Your task to perform on an android device: set the stopwatch Image 0: 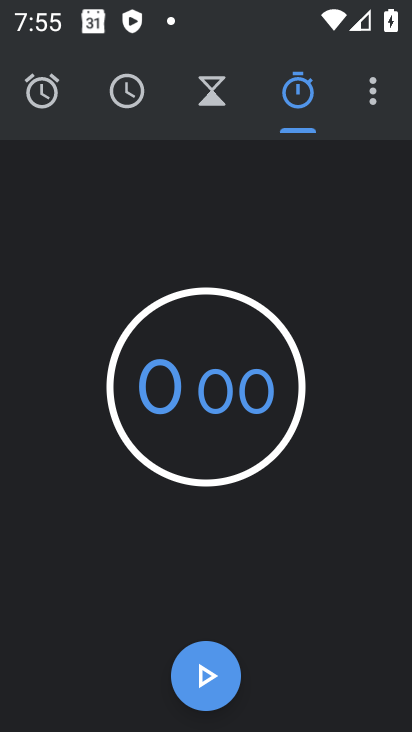
Step 0: press home button
Your task to perform on an android device: set the stopwatch Image 1: 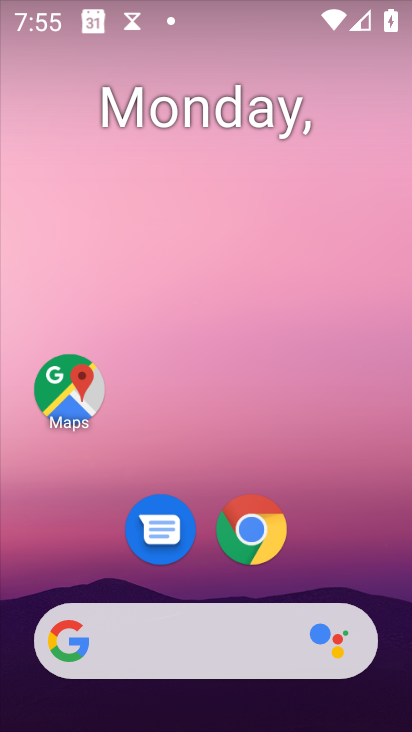
Step 1: drag from (65, 537) to (221, 175)
Your task to perform on an android device: set the stopwatch Image 2: 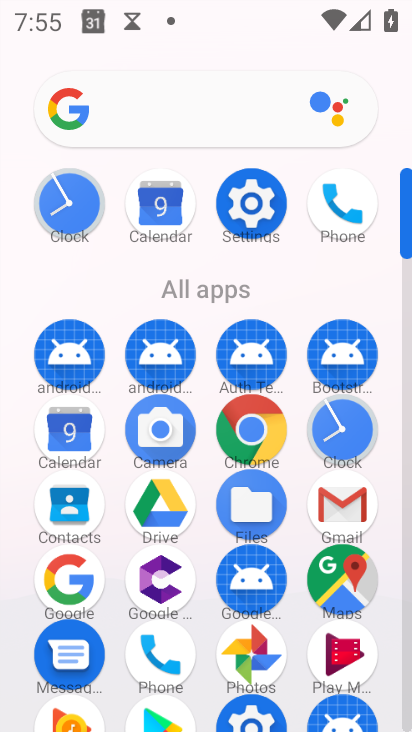
Step 2: click (334, 432)
Your task to perform on an android device: set the stopwatch Image 3: 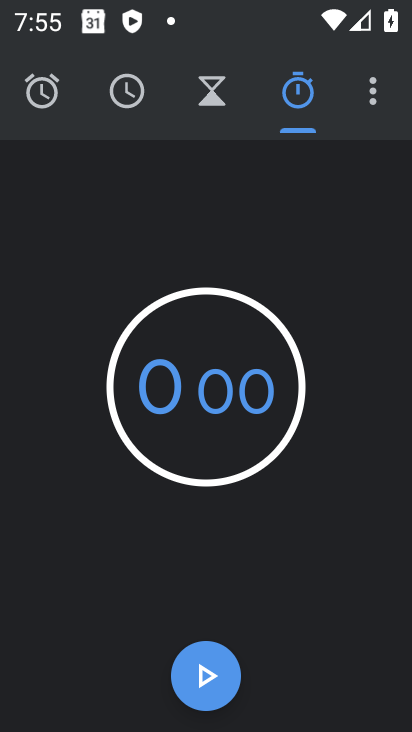
Step 3: click (215, 673)
Your task to perform on an android device: set the stopwatch Image 4: 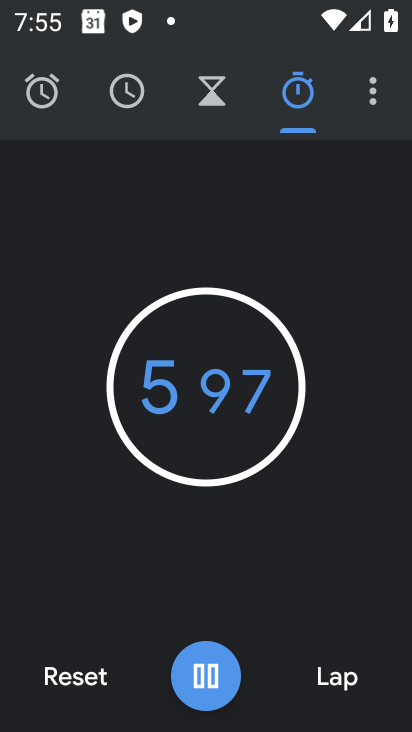
Step 4: task complete